Your task to perform on an android device: open the mobile data screen to see how much data has been used Image 0: 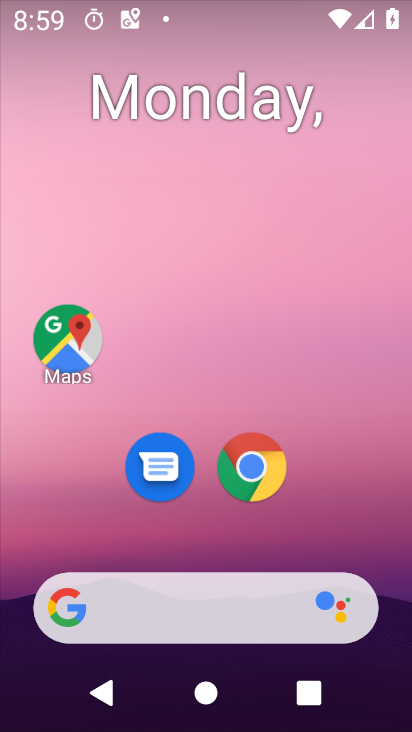
Step 0: drag from (223, 462) to (290, 1)
Your task to perform on an android device: open the mobile data screen to see how much data has been used Image 1: 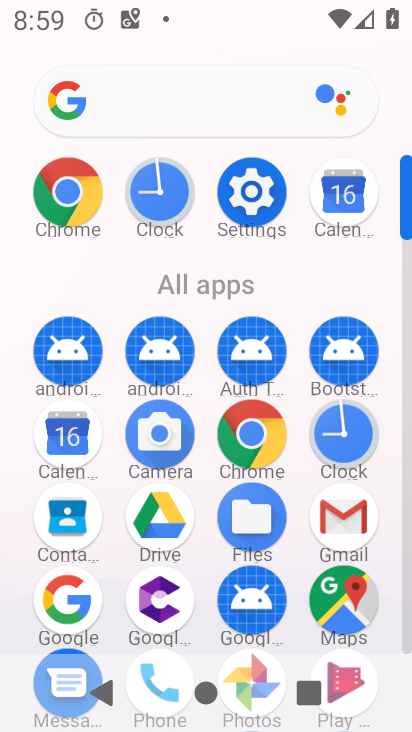
Step 1: click (243, 218)
Your task to perform on an android device: open the mobile data screen to see how much data has been used Image 2: 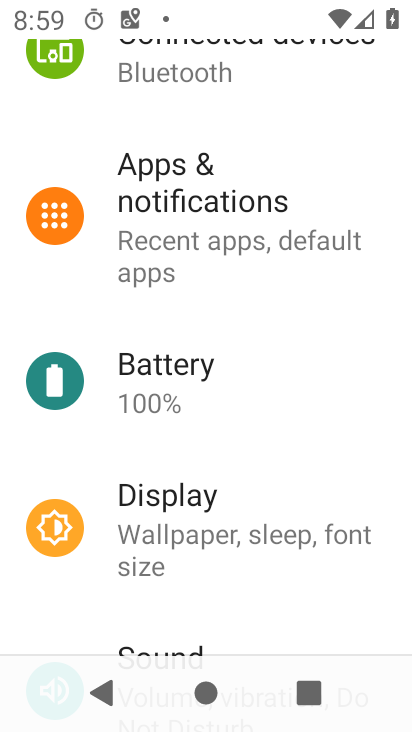
Step 2: drag from (239, 254) to (213, 570)
Your task to perform on an android device: open the mobile data screen to see how much data has been used Image 3: 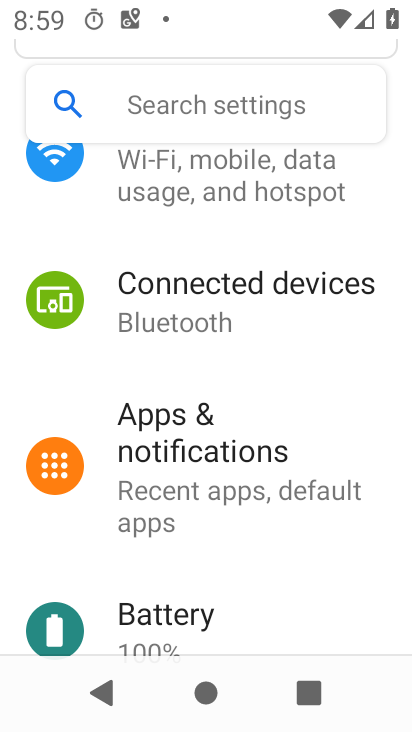
Step 3: click (247, 211)
Your task to perform on an android device: open the mobile data screen to see how much data has been used Image 4: 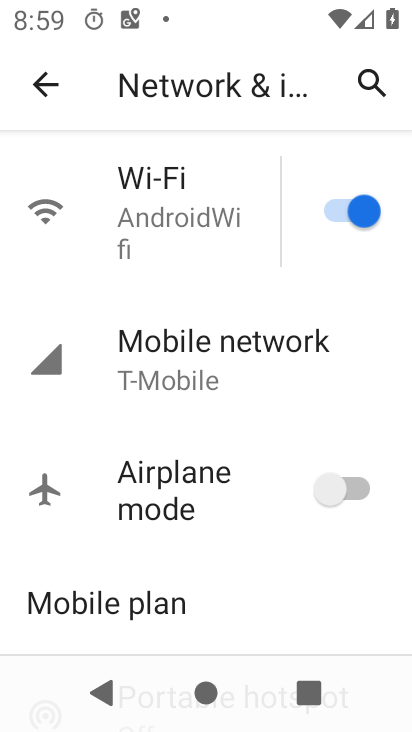
Step 4: click (214, 394)
Your task to perform on an android device: open the mobile data screen to see how much data has been used Image 5: 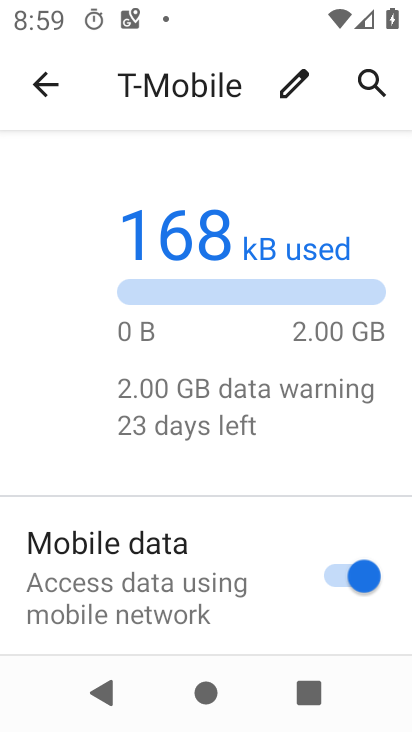
Step 5: task complete